Your task to perform on an android device: Go to CNN.com Image 0: 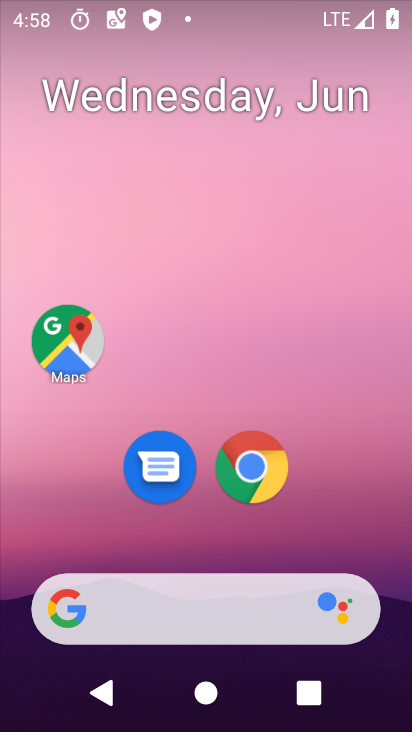
Step 0: click (257, 467)
Your task to perform on an android device: Go to CNN.com Image 1: 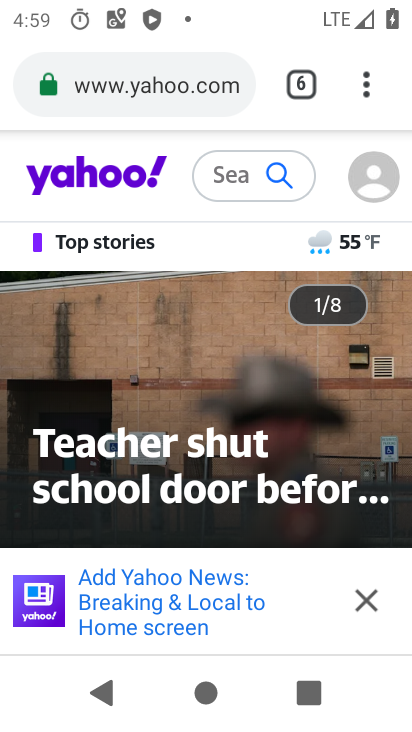
Step 1: click (301, 79)
Your task to perform on an android device: Go to CNN.com Image 2: 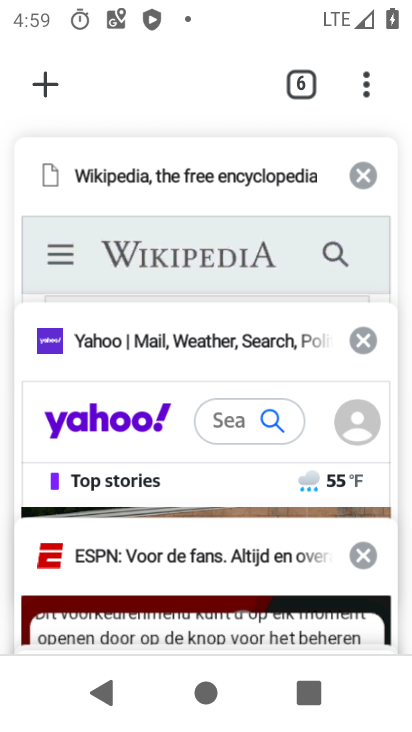
Step 2: drag from (189, 189) to (173, 595)
Your task to perform on an android device: Go to CNN.com Image 3: 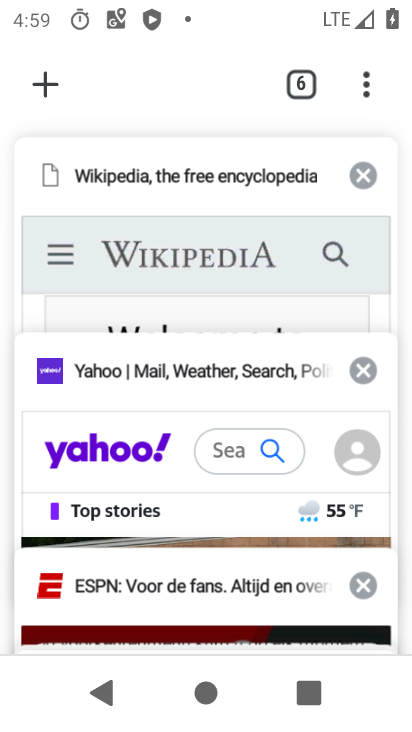
Step 3: drag from (191, 243) to (198, 30)
Your task to perform on an android device: Go to CNN.com Image 4: 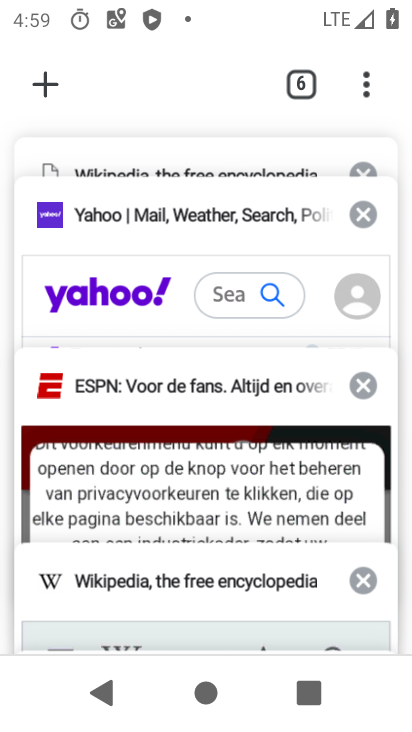
Step 4: drag from (191, 451) to (197, 124)
Your task to perform on an android device: Go to CNN.com Image 5: 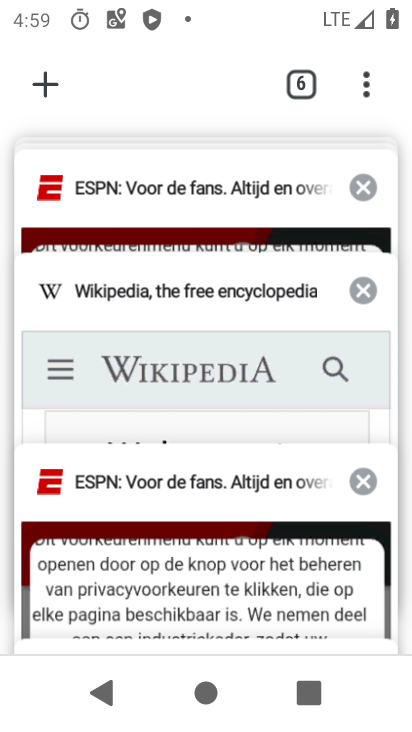
Step 5: click (45, 82)
Your task to perform on an android device: Go to CNN.com Image 6: 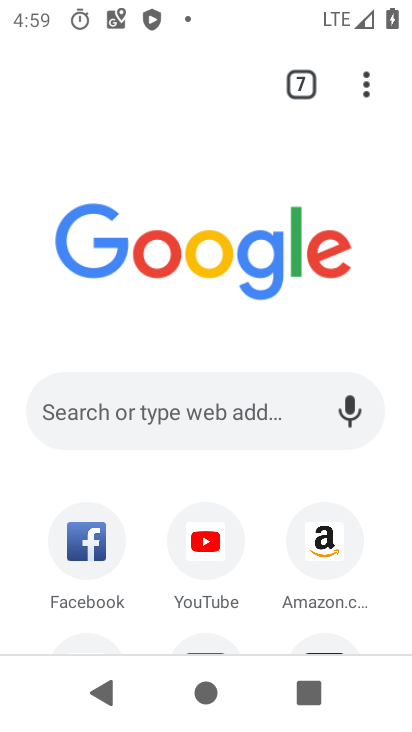
Step 6: click (231, 418)
Your task to perform on an android device: Go to CNN.com Image 7: 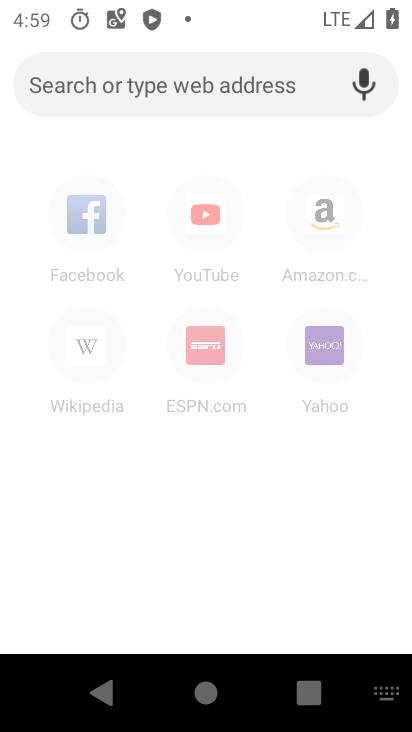
Step 7: type "CNN.com"
Your task to perform on an android device: Go to CNN.com Image 8: 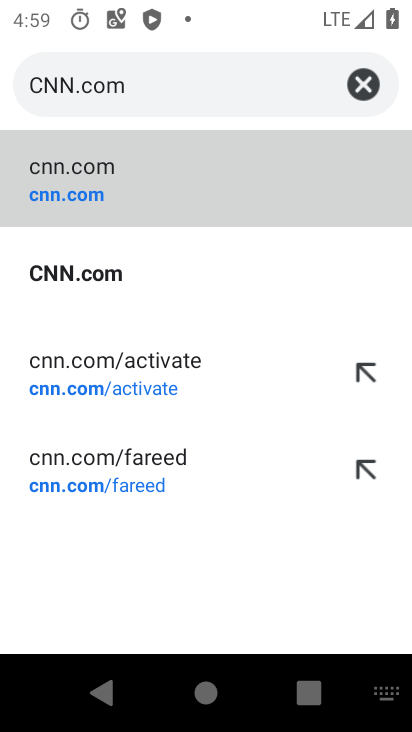
Step 8: click (182, 188)
Your task to perform on an android device: Go to CNN.com Image 9: 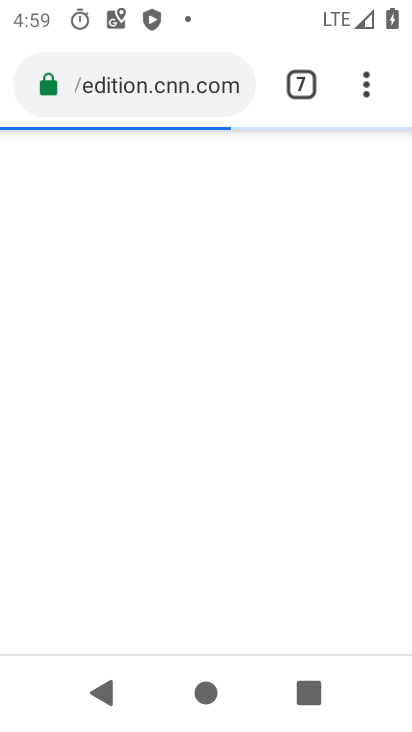
Step 9: task complete